Your task to perform on an android device: change the clock display to show seconds Image 0: 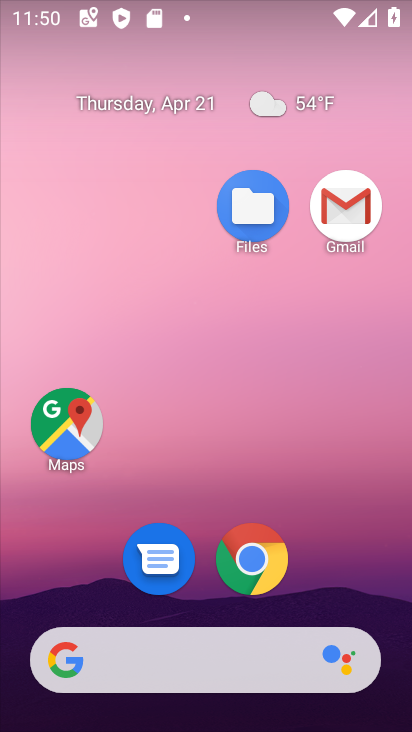
Step 0: drag from (282, 622) to (303, 83)
Your task to perform on an android device: change the clock display to show seconds Image 1: 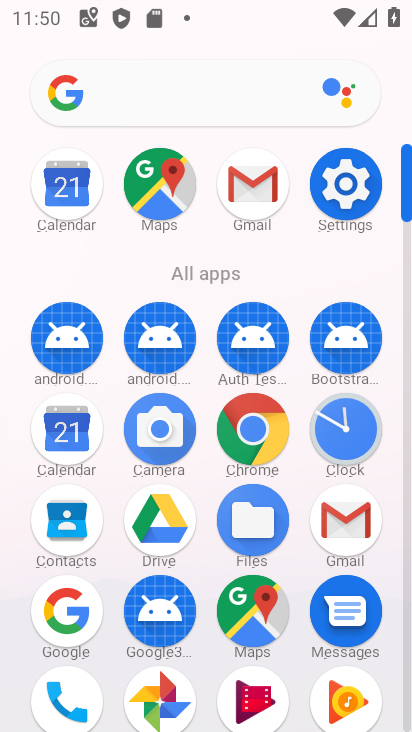
Step 1: click (330, 410)
Your task to perform on an android device: change the clock display to show seconds Image 2: 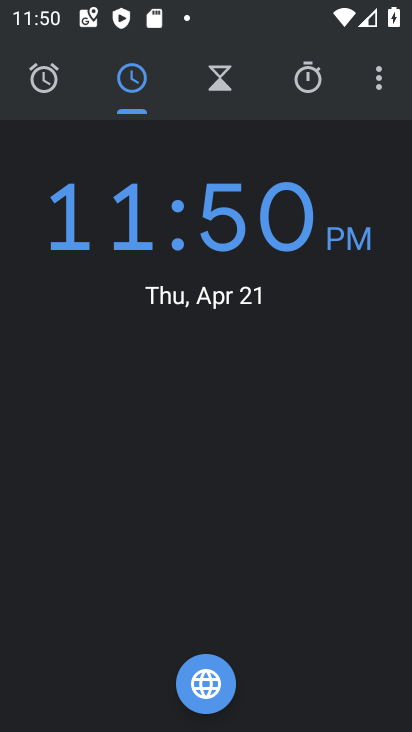
Step 2: click (379, 72)
Your task to perform on an android device: change the clock display to show seconds Image 3: 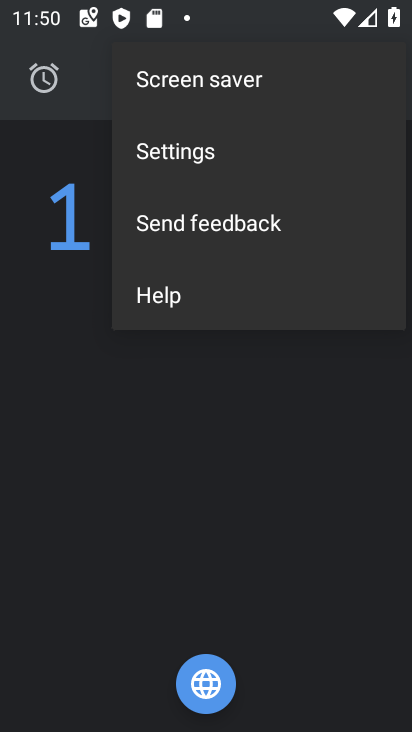
Step 3: click (185, 144)
Your task to perform on an android device: change the clock display to show seconds Image 4: 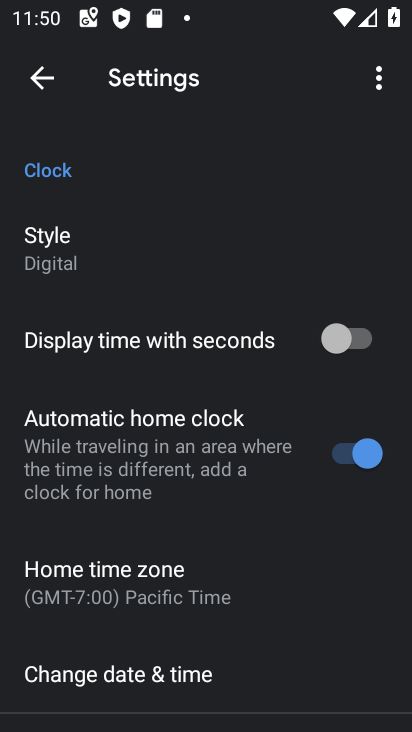
Step 4: click (365, 337)
Your task to perform on an android device: change the clock display to show seconds Image 5: 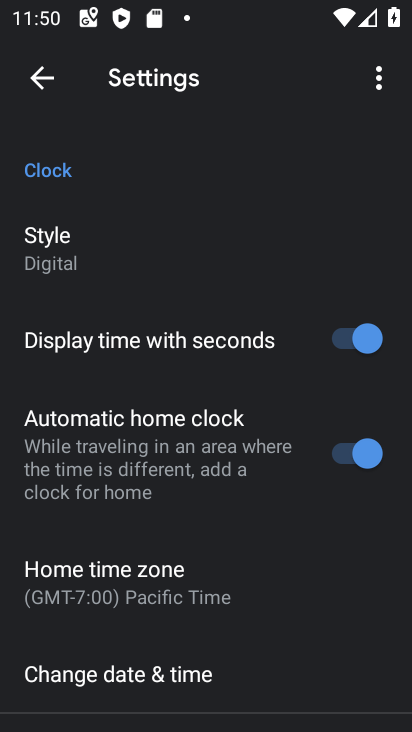
Step 5: task complete